Your task to perform on an android device: Go to calendar. Show me events next week Image 0: 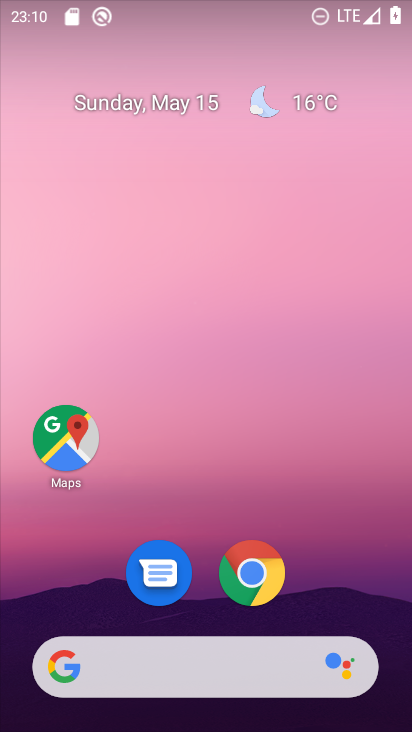
Step 0: press home button
Your task to perform on an android device: Go to calendar. Show me events next week Image 1: 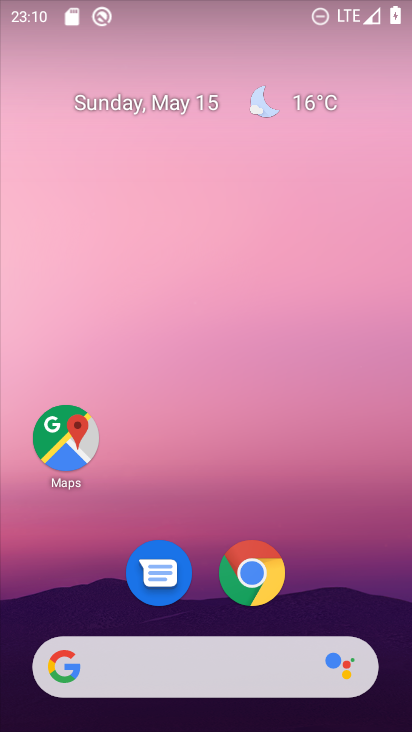
Step 1: drag from (392, 596) to (352, 47)
Your task to perform on an android device: Go to calendar. Show me events next week Image 2: 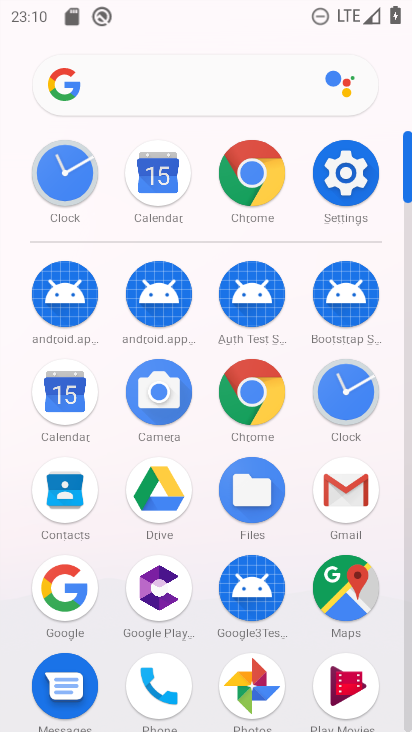
Step 2: click (77, 406)
Your task to perform on an android device: Go to calendar. Show me events next week Image 3: 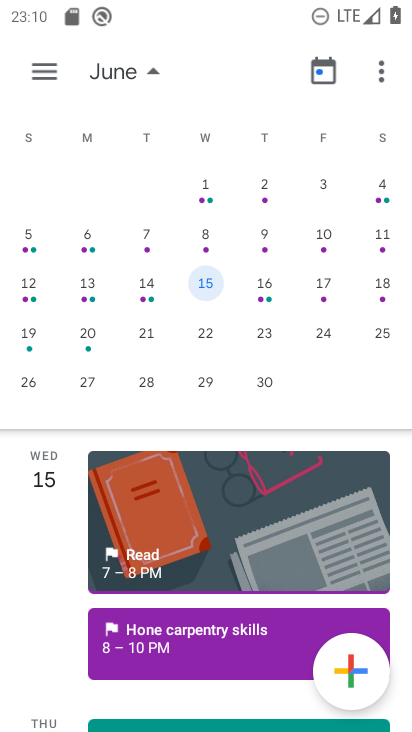
Step 3: click (43, 99)
Your task to perform on an android device: Go to calendar. Show me events next week Image 4: 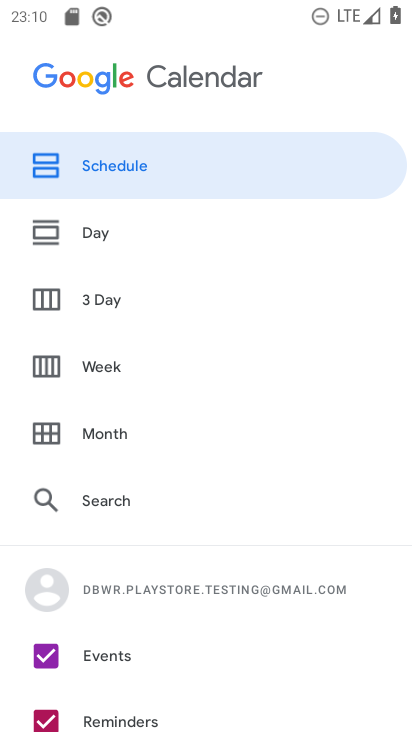
Step 4: task complete